Your task to perform on an android device: delete the emails in spam in the gmail app Image 0: 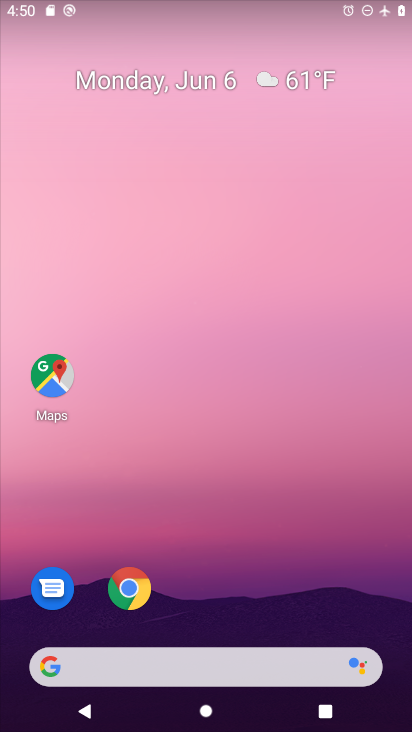
Step 0: drag from (245, 609) to (207, 77)
Your task to perform on an android device: delete the emails in spam in the gmail app Image 1: 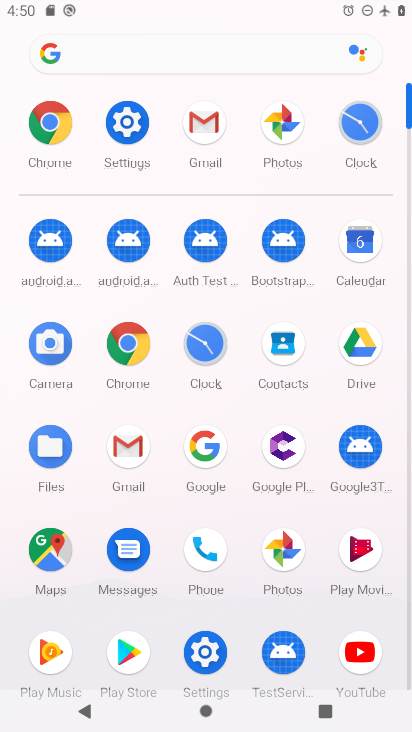
Step 1: click (215, 148)
Your task to perform on an android device: delete the emails in spam in the gmail app Image 2: 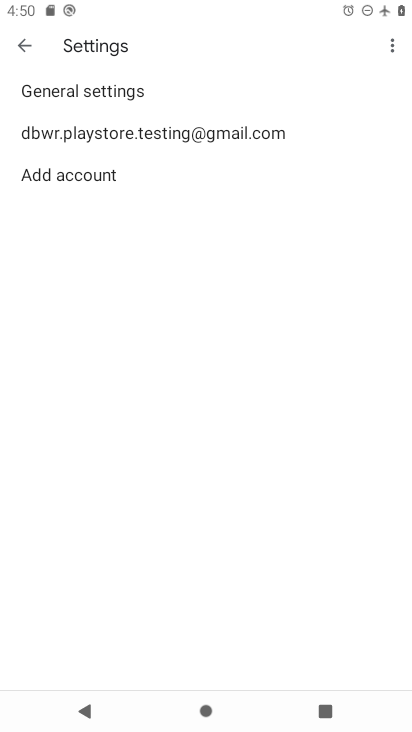
Step 2: click (26, 52)
Your task to perform on an android device: delete the emails in spam in the gmail app Image 3: 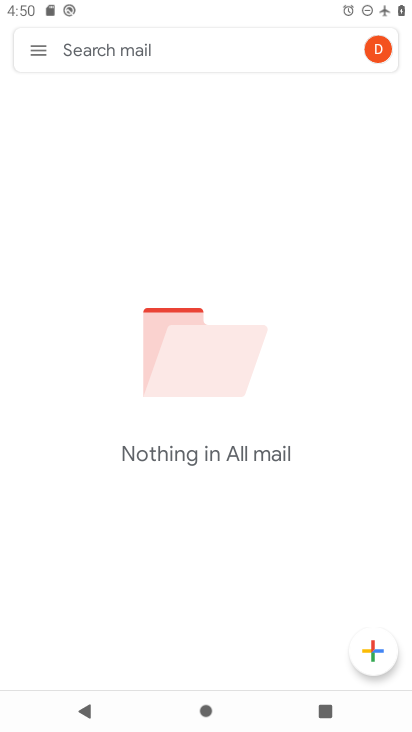
Step 3: click (26, 52)
Your task to perform on an android device: delete the emails in spam in the gmail app Image 4: 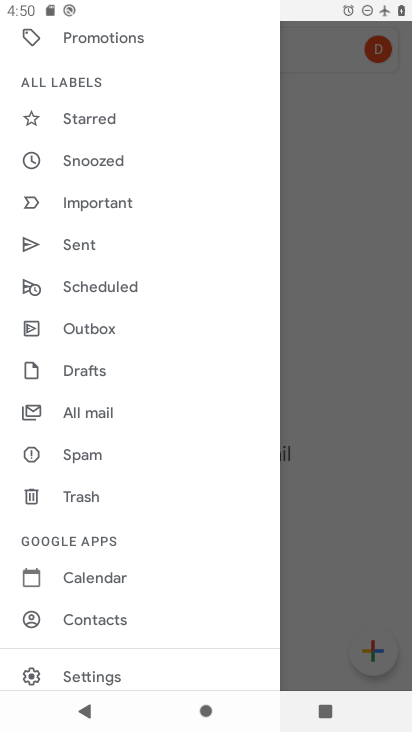
Step 4: click (98, 459)
Your task to perform on an android device: delete the emails in spam in the gmail app Image 5: 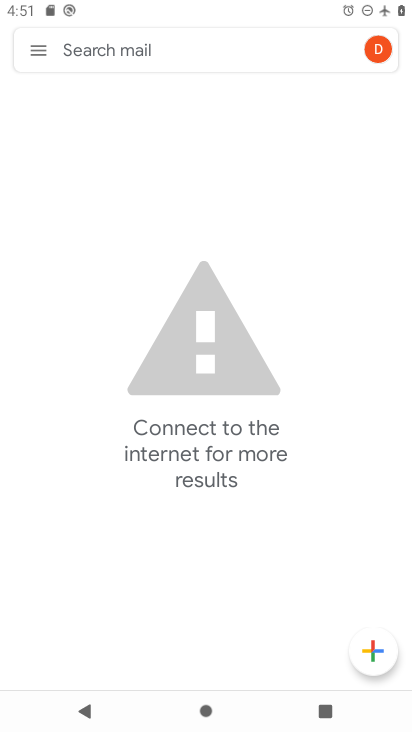
Step 5: task complete